Your task to perform on an android device: open the mobile data screen to see how much data has been used Image 0: 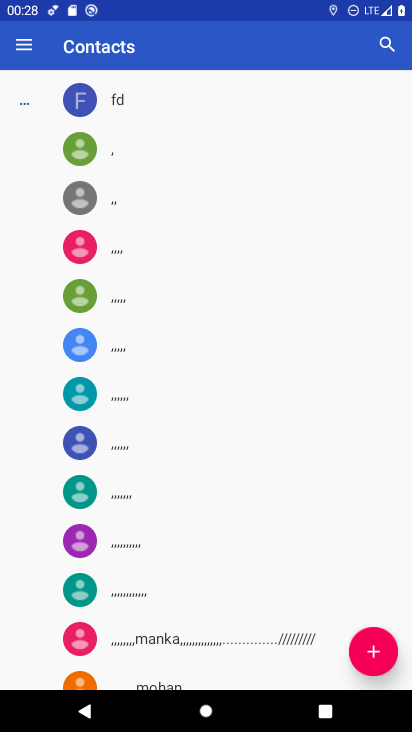
Step 0: press home button
Your task to perform on an android device: open the mobile data screen to see how much data has been used Image 1: 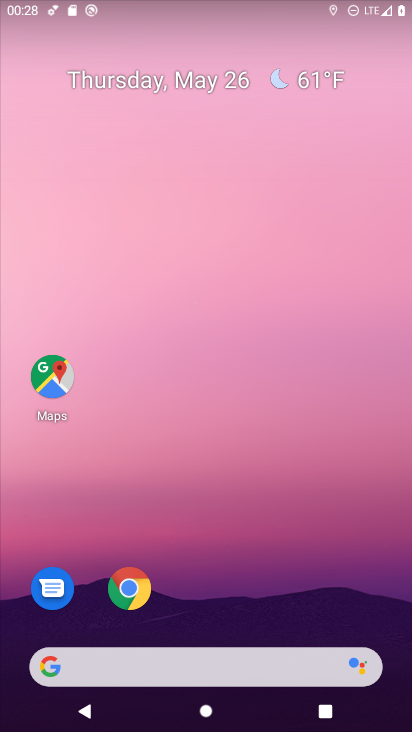
Step 1: drag from (283, 528) to (181, 208)
Your task to perform on an android device: open the mobile data screen to see how much data has been used Image 2: 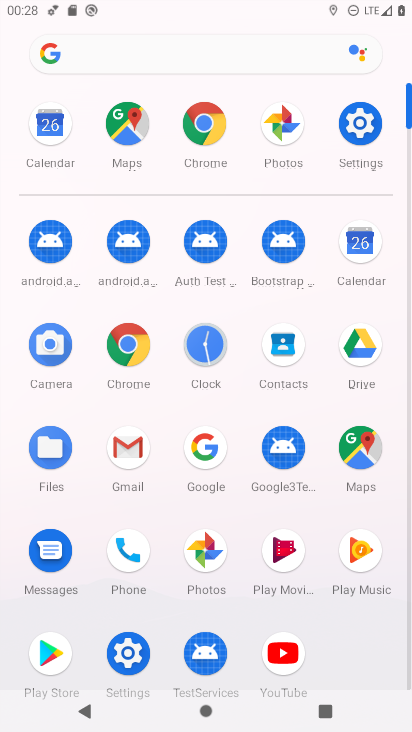
Step 2: click (365, 124)
Your task to perform on an android device: open the mobile data screen to see how much data has been used Image 3: 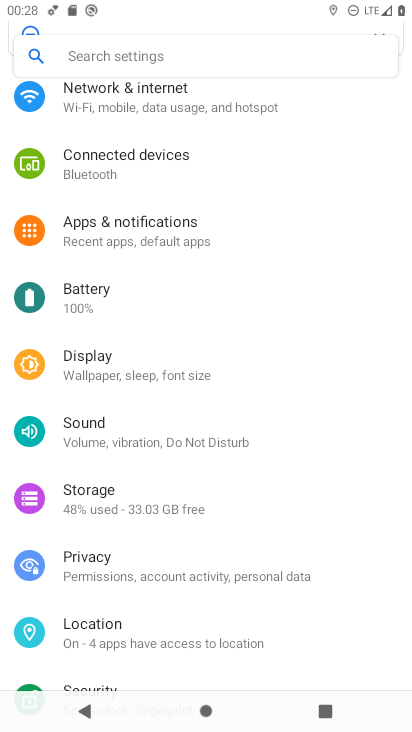
Step 3: click (127, 98)
Your task to perform on an android device: open the mobile data screen to see how much data has been used Image 4: 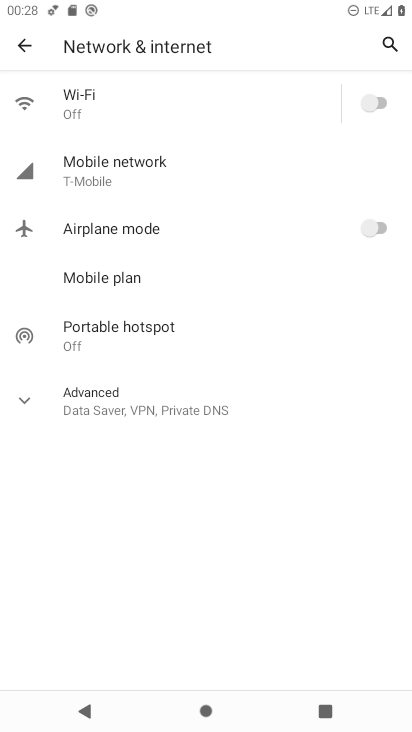
Step 4: click (112, 160)
Your task to perform on an android device: open the mobile data screen to see how much data has been used Image 5: 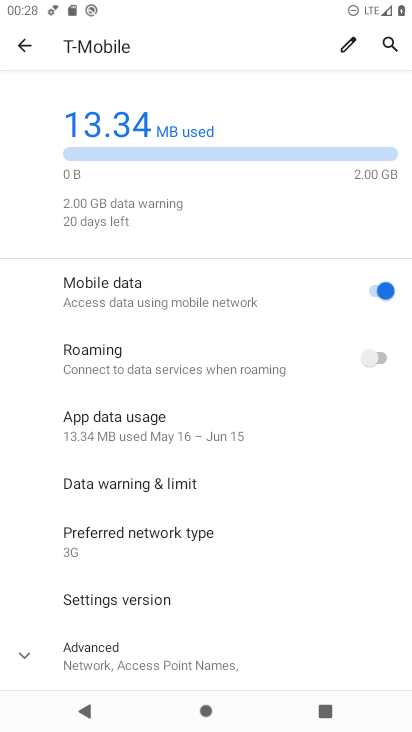
Step 5: task complete